Your task to perform on an android device: What's the news about the US economy? Image 0: 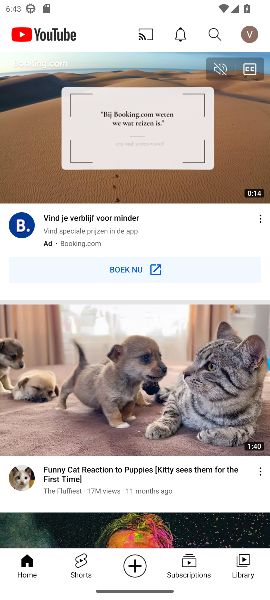
Step 0: press home button
Your task to perform on an android device: What's the news about the US economy? Image 1: 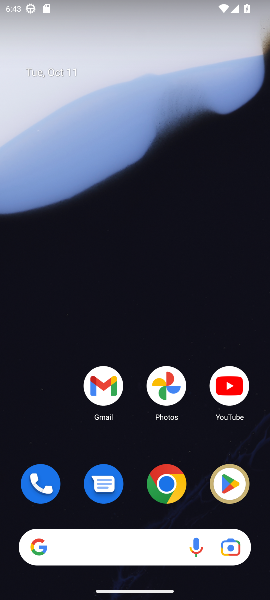
Step 1: click (165, 484)
Your task to perform on an android device: What's the news about the US economy? Image 2: 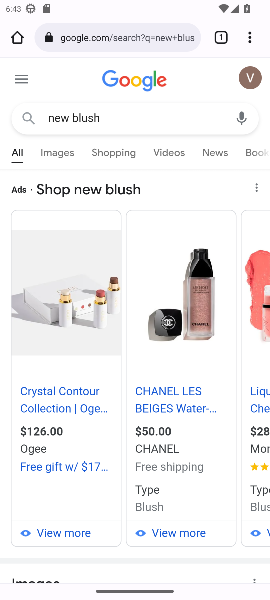
Step 2: click (132, 40)
Your task to perform on an android device: What's the news about the US economy? Image 3: 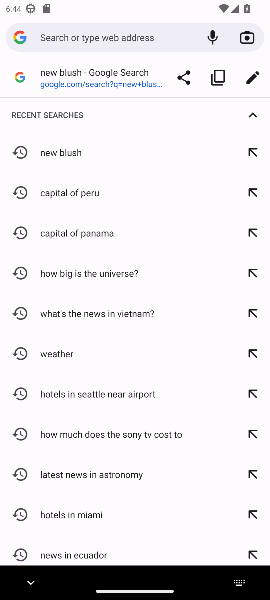
Step 3: type "What's the news about the US economy?"
Your task to perform on an android device: What's the news about the US economy? Image 4: 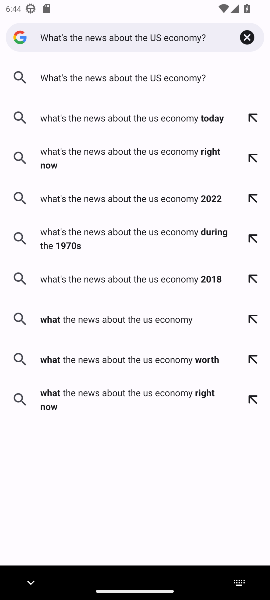
Step 4: click (139, 73)
Your task to perform on an android device: What's the news about the US economy? Image 5: 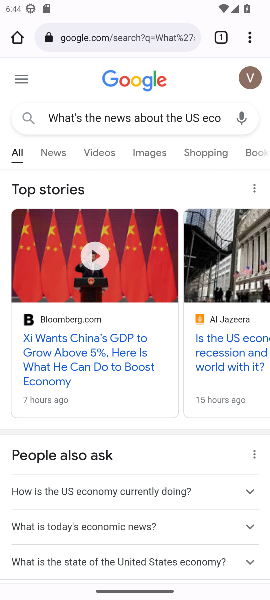
Step 5: drag from (224, 349) to (104, 372)
Your task to perform on an android device: What's the news about the US economy? Image 6: 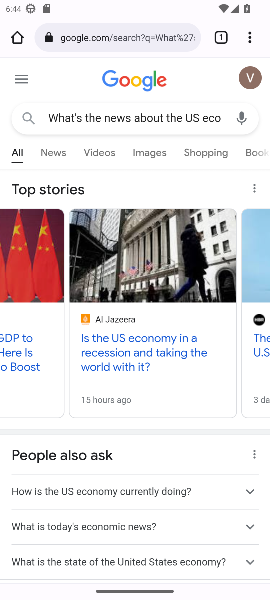
Step 6: drag from (165, 417) to (181, 214)
Your task to perform on an android device: What's the news about the US economy? Image 7: 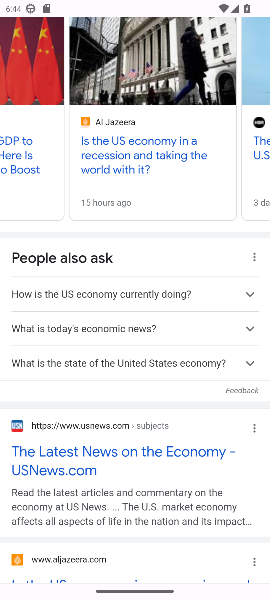
Step 7: click (169, 449)
Your task to perform on an android device: What's the news about the US economy? Image 8: 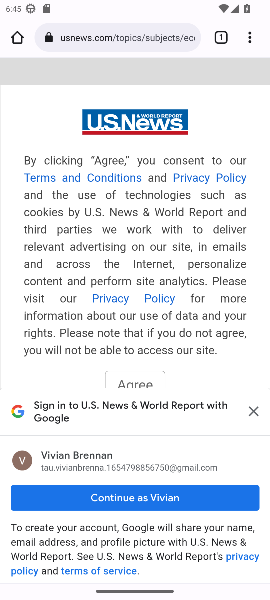
Step 8: click (252, 407)
Your task to perform on an android device: What's the news about the US economy? Image 9: 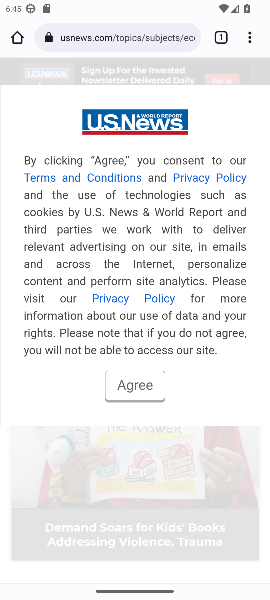
Step 9: click (138, 389)
Your task to perform on an android device: What's the news about the US economy? Image 10: 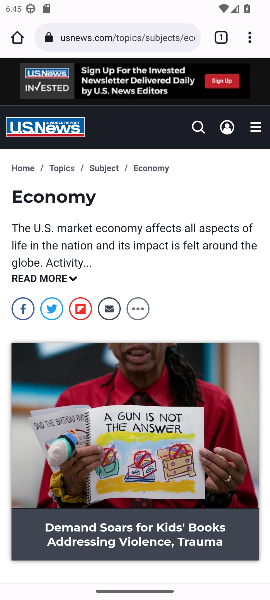
Step 10: task complete